Your task to perform on an android device: View the shopping cart on bestbuy. Image 0: 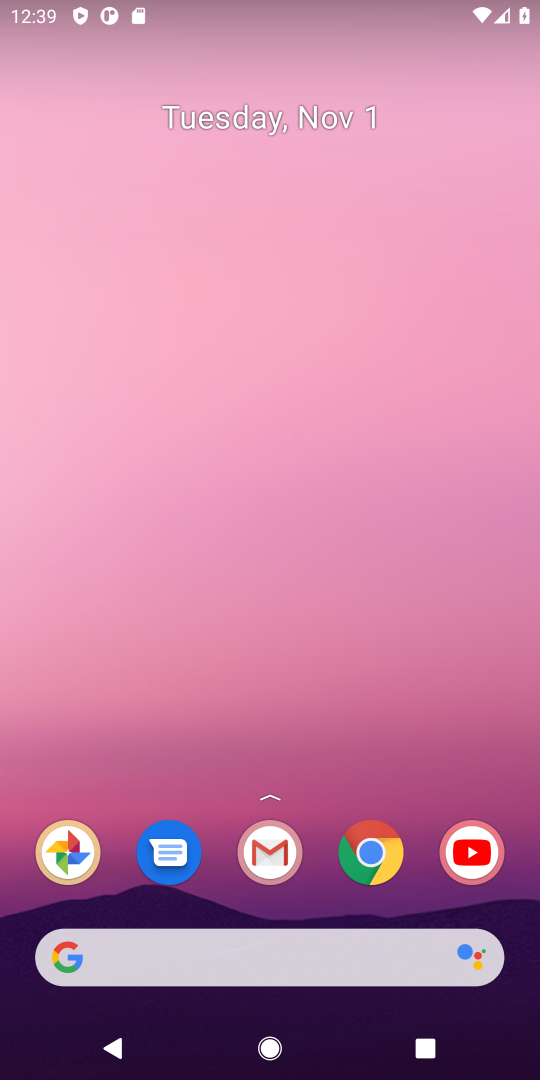
Step 0: click (364, 864)
Your task to perform on an android device: View the shopping cart on bestbuy. Image 1: 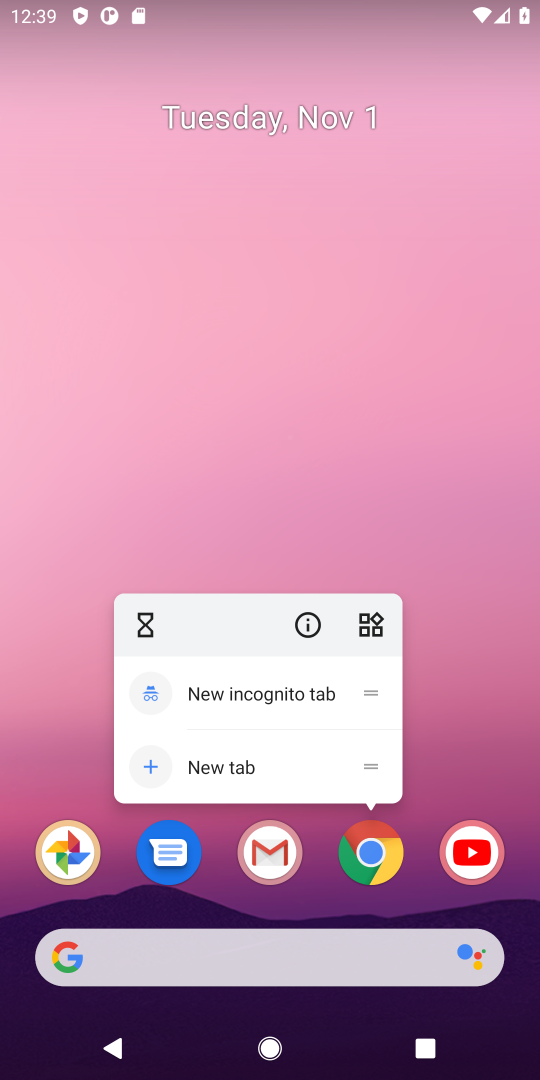
Step 1: click (380, 854)
Your task to perform on an android device: View the shopping cart on bestbuy. Image 2: 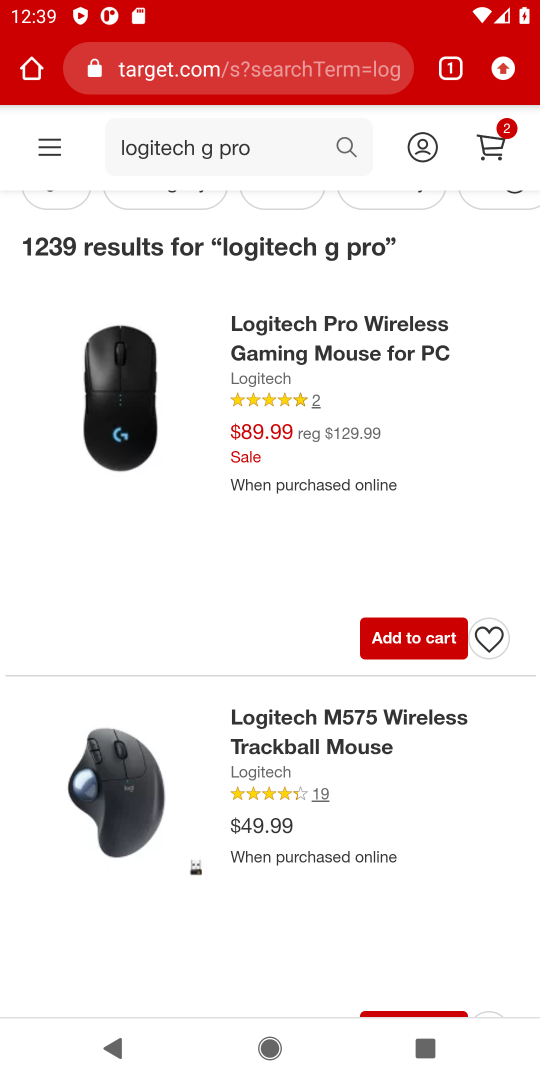
Step 2: click (228, 66)
Your task to perform on an android device: View the shopping cart on bestbuy. Image 3: 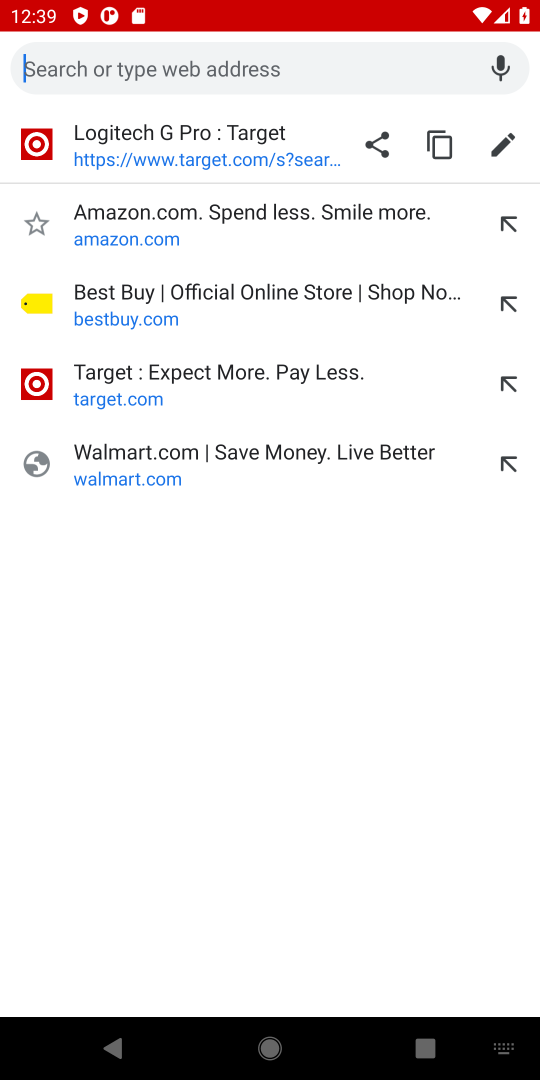
Step 3: type "bestbuy"
Your task to perform on an android device: View the shopping cart on bestbuy. Image 4: 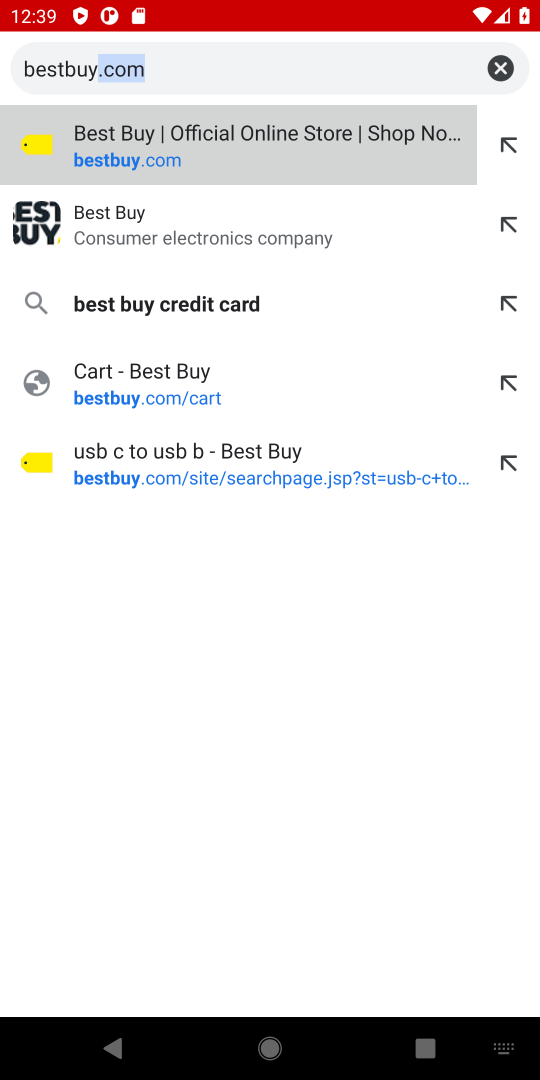
Step 4: type ""
Your task to perform on an android device: View the shopping cart on bestbuy. Image 5: 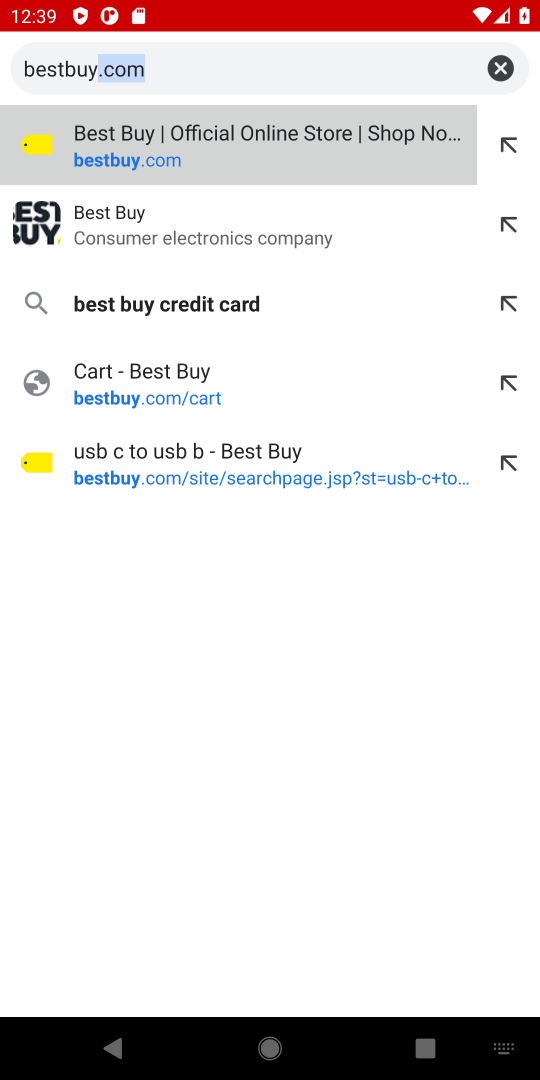
Step 5: press enter
Your task to perform on an android device: View the shopping cart on bestbuy. Image 6: 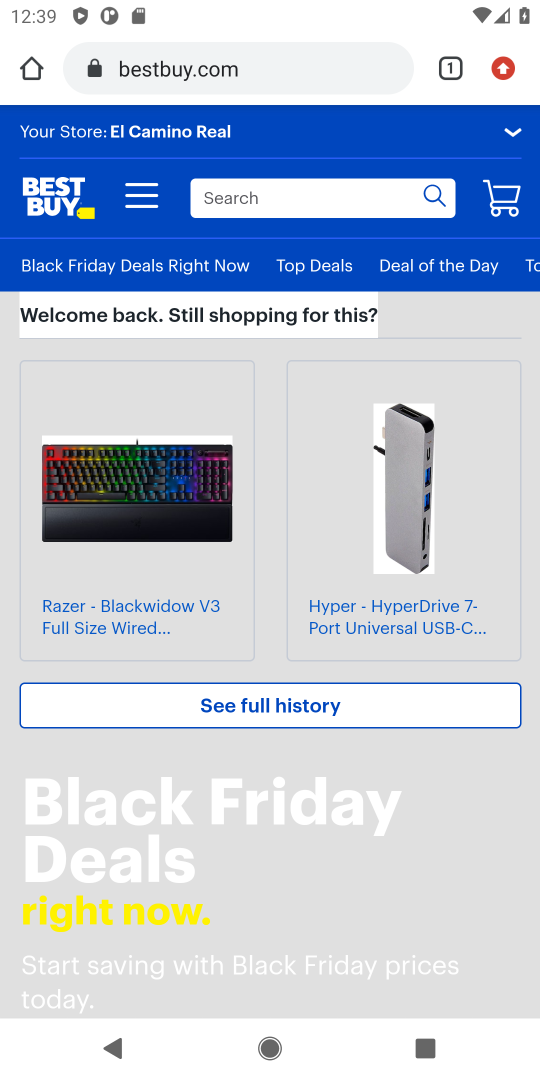
Step 6: click (489, 194)
Your task to perform on an android device: View the shopping cart on bestbuy. Image 7: 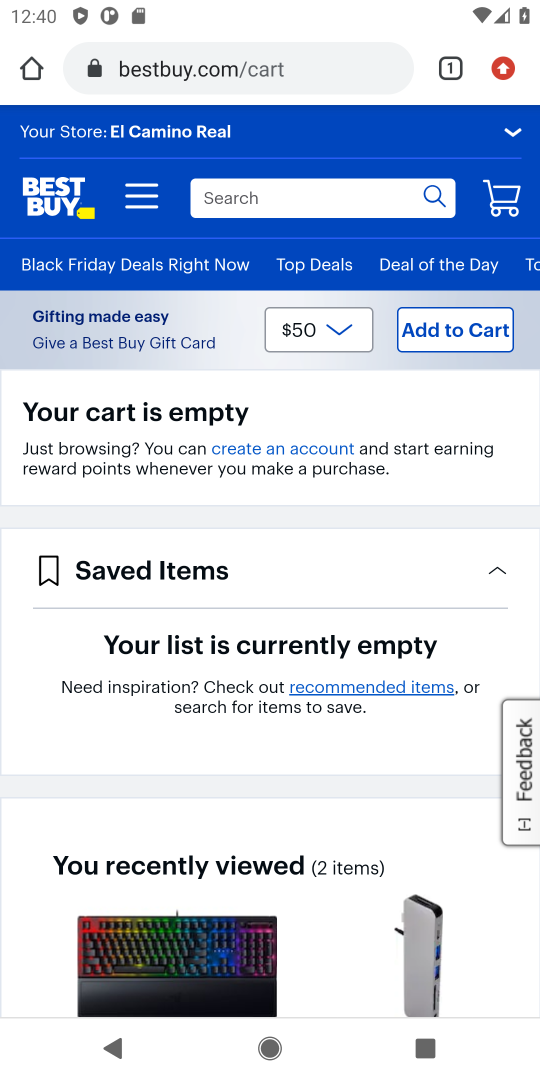
Step 7: task complete